Your task to perform on an android device: turn off smart reply in the gmail app Image 0: 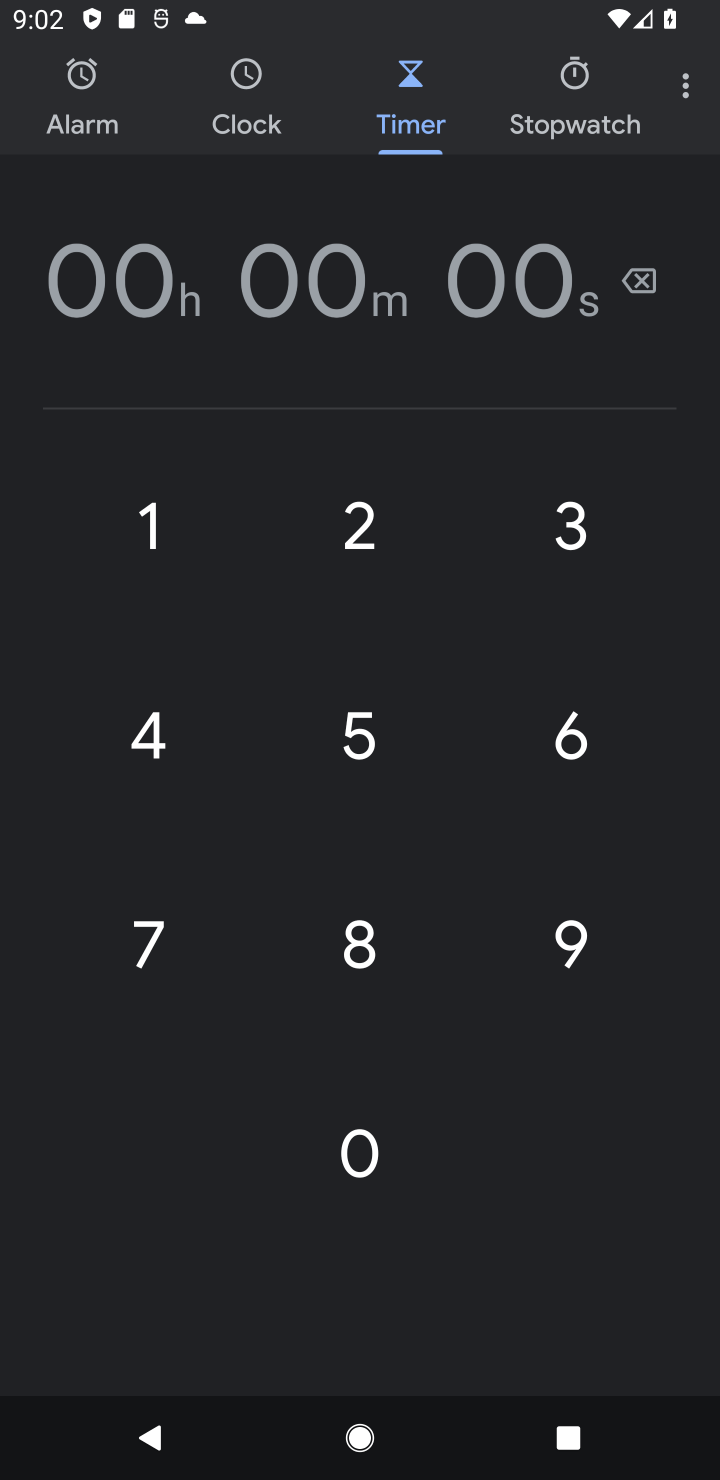
Step 0: press home button
Your task to perform on an android device: turn off smart reply in the gmail app Image 1: 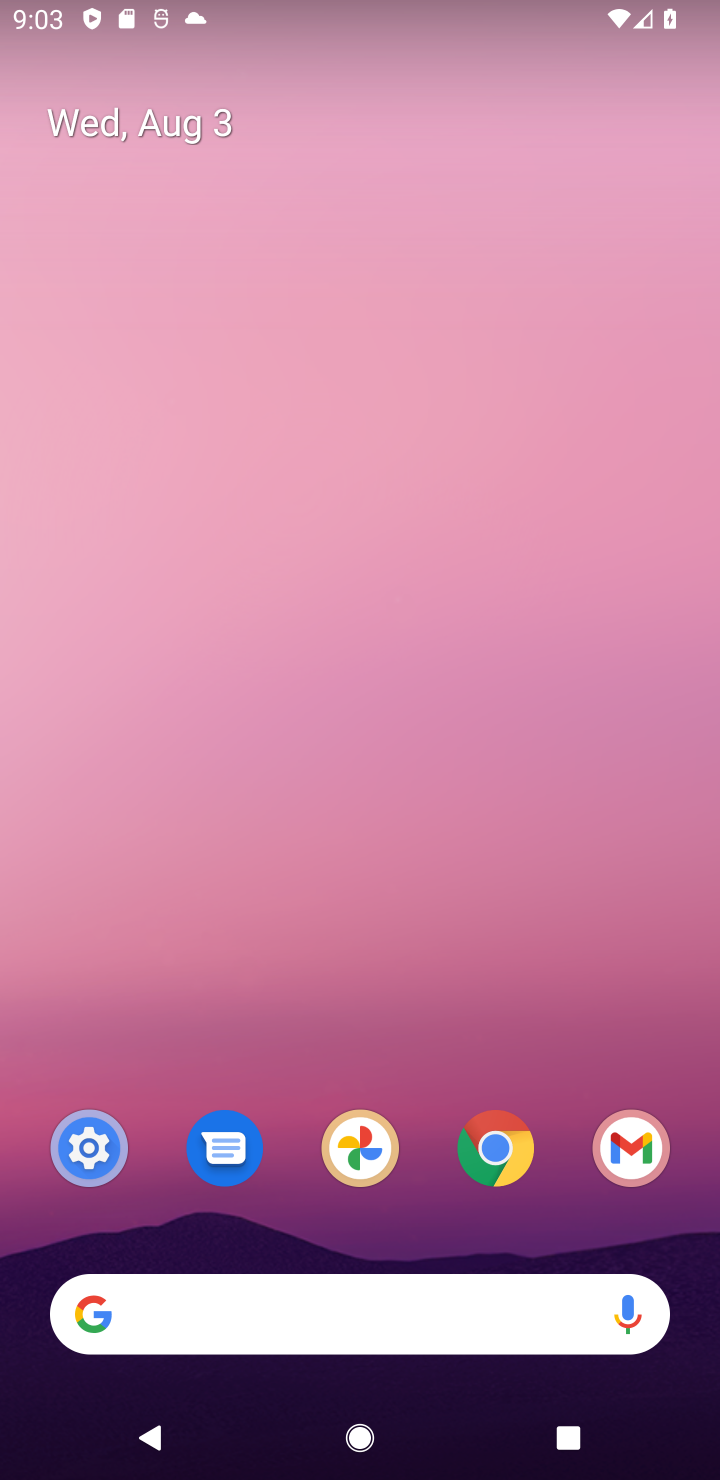
Step 1: drag from (329, 974) to (336, 284)
Your task to perform on an android device: turn off smart reply in the gmail app Image 2: 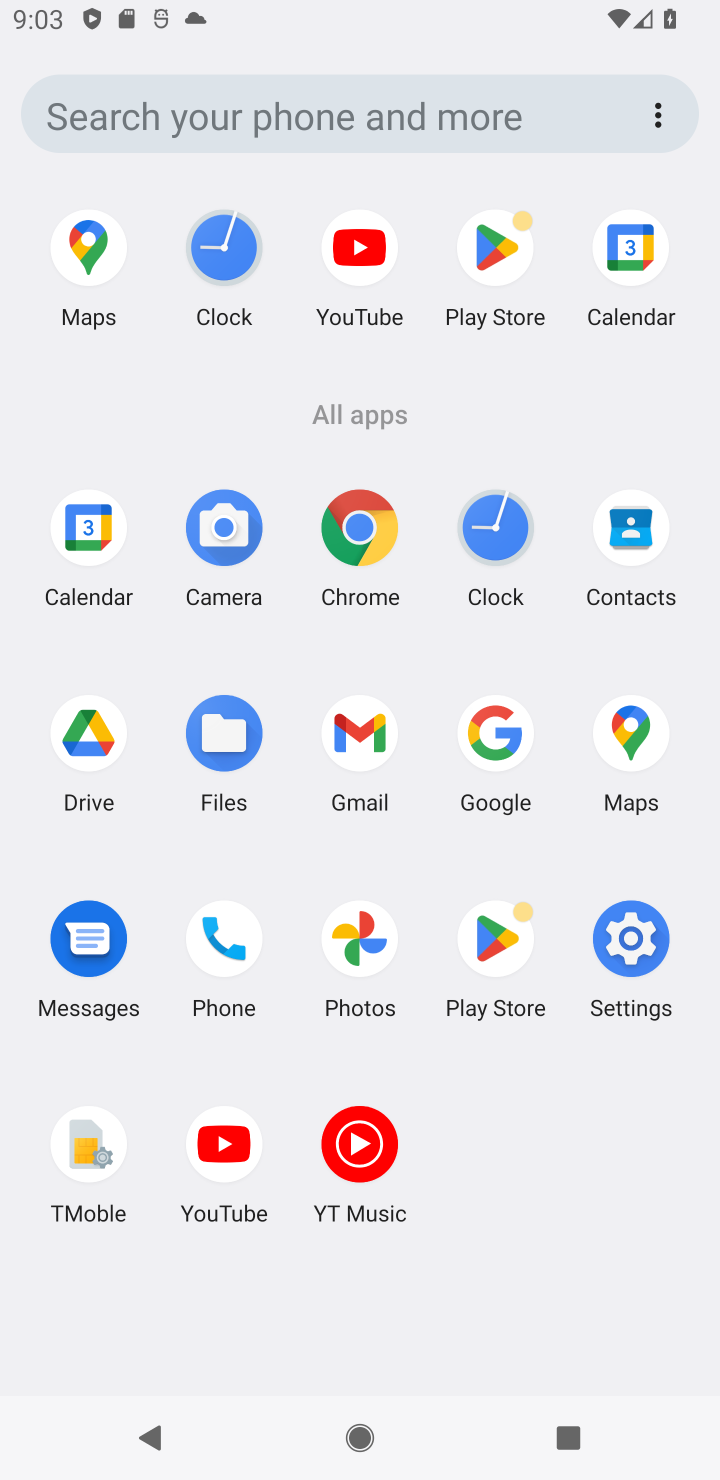
Step 2: click (356, 744)
Your task to perform on an android device: turn off smart reply in the gmail app Image 3: 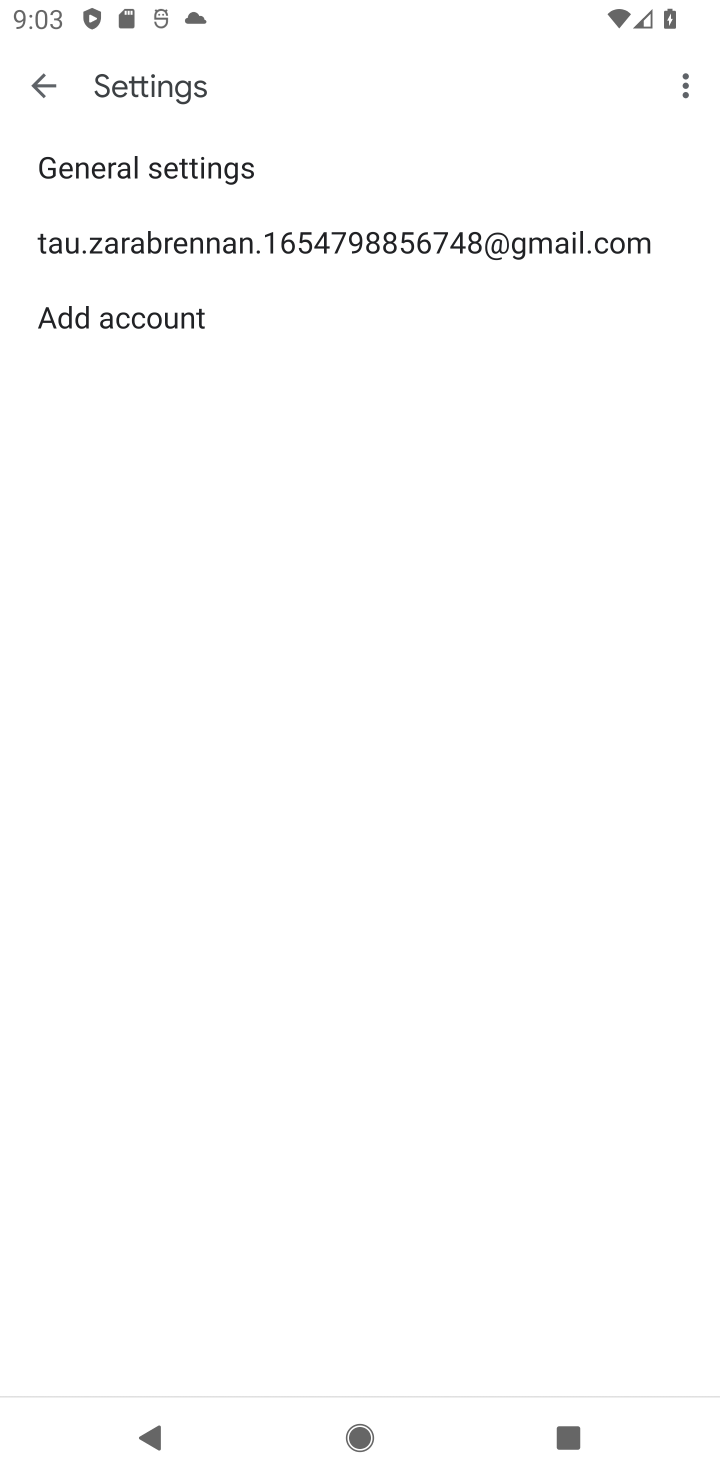
Step 3: task complete